Your task to perform on an android device: turn on the 12-hour format for clock Image 0: 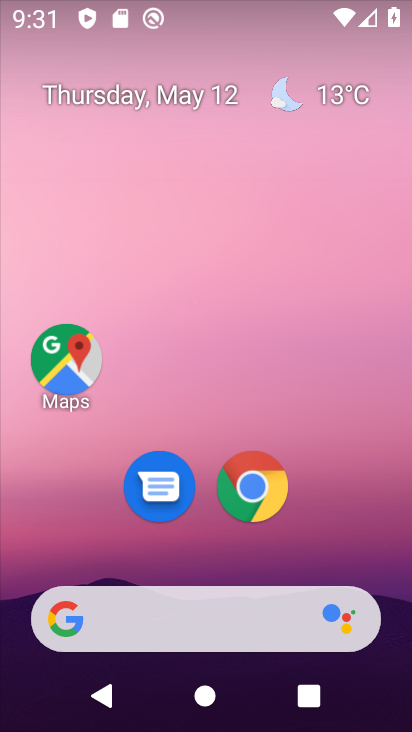
Step 0: drag from (390, 479) to (238, 27)
Your task to perform on an android device: turn on the 12-hour format for clock Image 1: 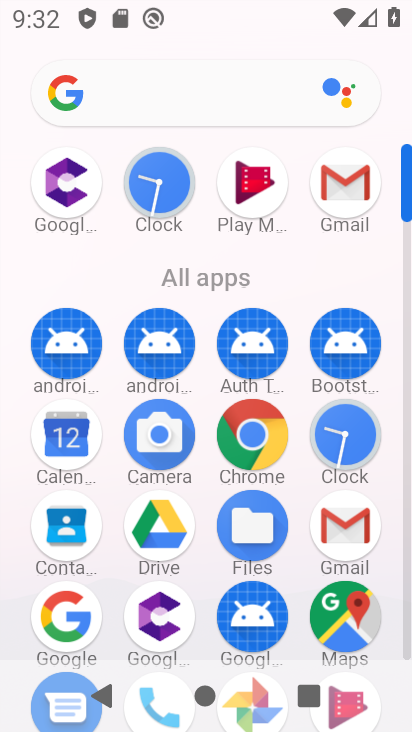
Step 1: click (347, 422)
Your task to perform on an android device: turn on the 12-hour format for clock Image 2: 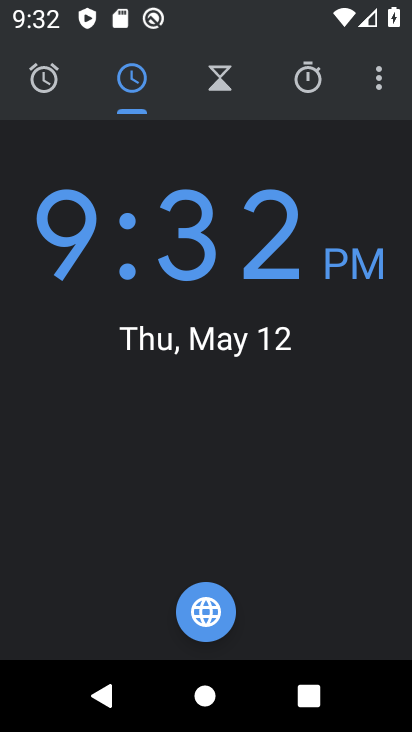
Step 2: click (385, 86)
Your task to perform on an android device: turn on the 12-hour format for clock Image 3: 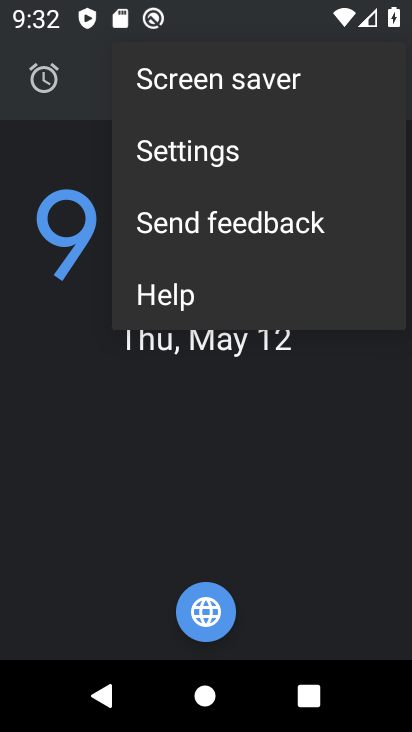
Step 3: click (235, 163)
Your task to perform on an android device: turn on the 12-hour format for clock Image 4: 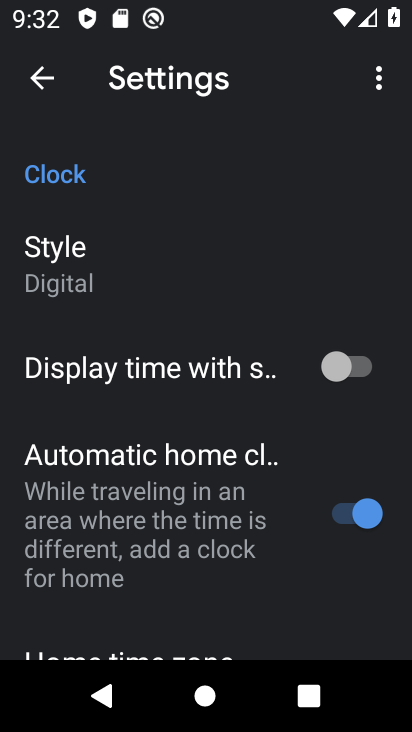
Step 4: drag from (318, 522) to (265, 341)
Your task to perform on an android device: turn on the 12-hour format for clock Image 5: 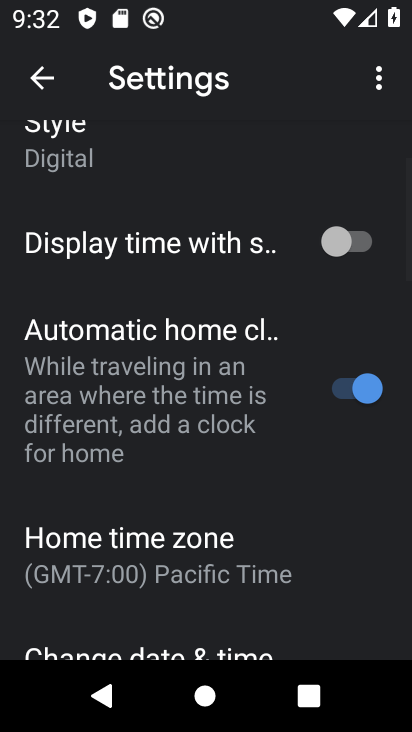
Step 5: drag from (272, 517) to (124, 341)
Your task to perform on an android device: turn on the 12-hour format for clock Image 6: 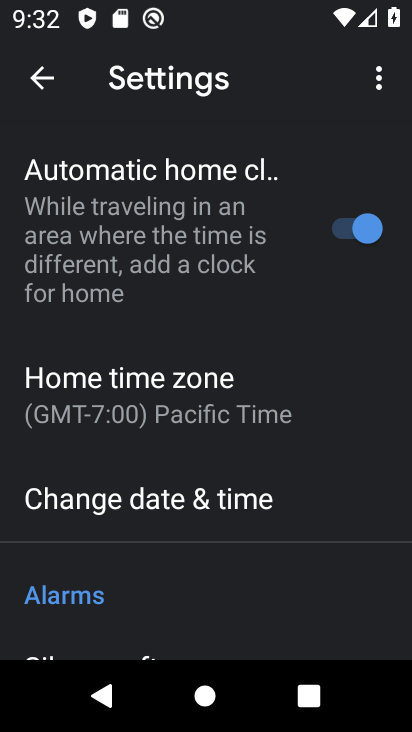
Step 6: click (204, 480)
Your task to perform on an android device: turn on the 12-hour format for clock Image 7: 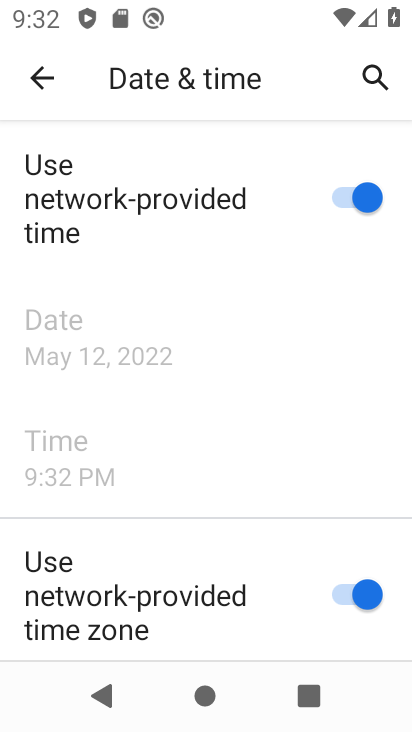
Step 7: task complete